Your task to perform on an android device: Open Google Maps Image 0: 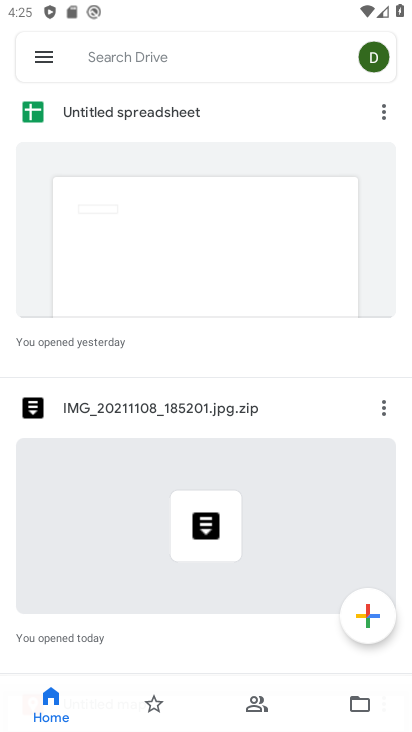
Step 0: press home button
Your task to perform on an android device: Open Google Maps Image 1: 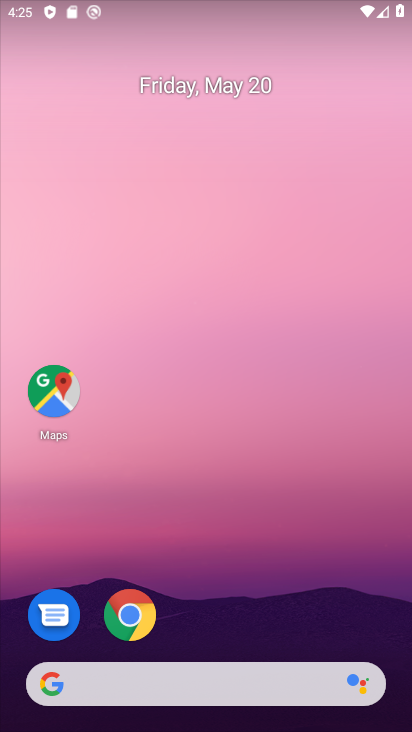
Step 1: drag from (241, 662) to (248, 209)
Your task to perform on an android device: Open Google Maps Image 2: 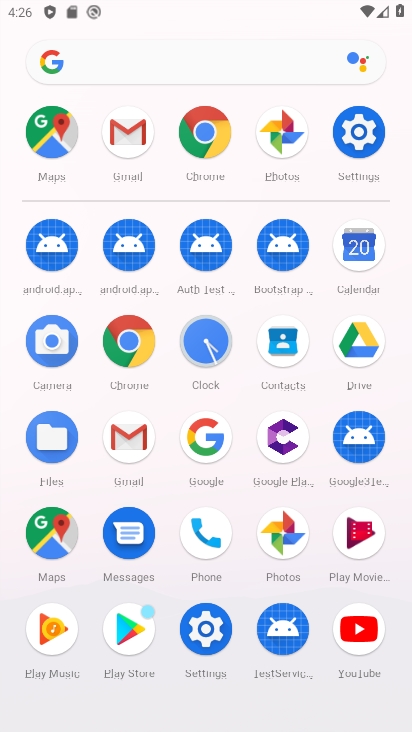
Step 2: click (55, 542)
Your task to perform on an android device: Open Google Maps Image 3: 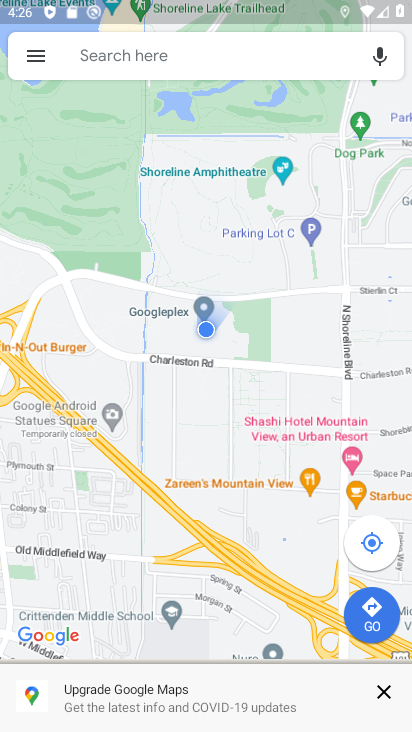
Step 3: task complete